Your task to perform on an android device: move an email to a new category in the gmail app Image 0: 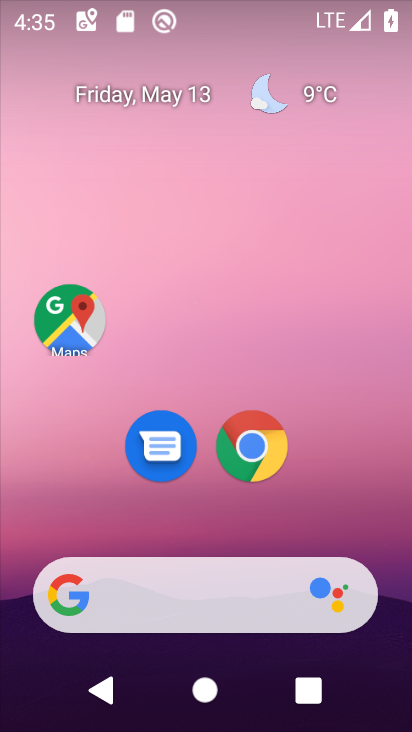
Step 0: drag from (317, 526) to (251, 31)
Your task to perform on an android device: move an email to a new category in the gmail app Image 1: 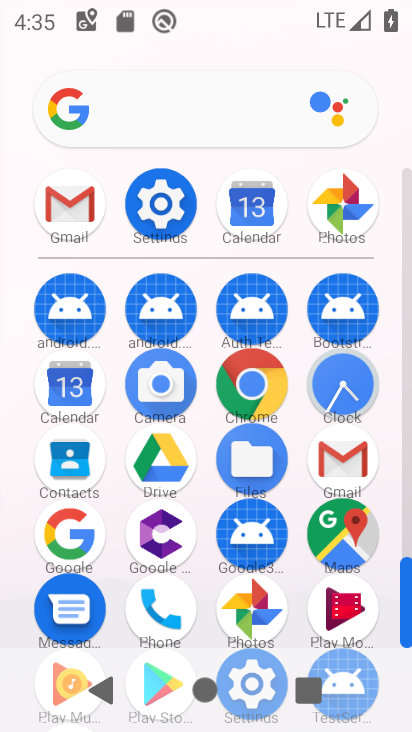
Step 1: click (339, 460)
Your task to perform on an android device: move an email to a new category in the gmail app Image 2: 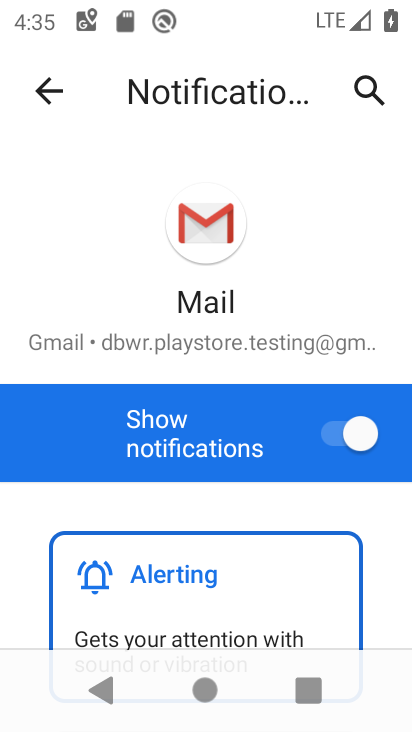
Step 2: click (47, 110)
Your task to perform on an android device: move an email to a new category in the gmail app Image 3: 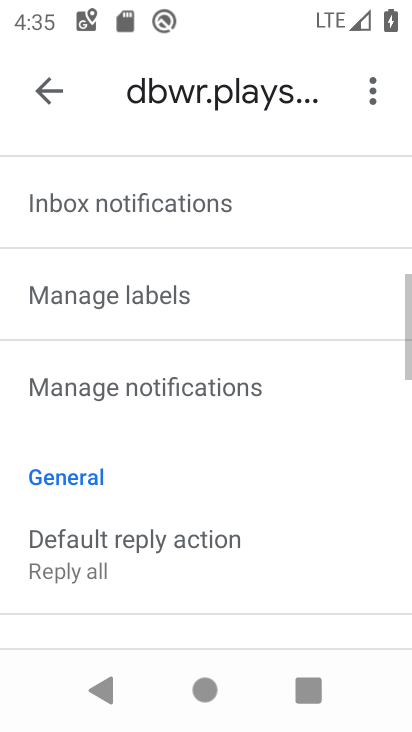
Step 3: click (48, 95)
Your task to perform on an android device: move an email to a new category in the gmail app Image 4: 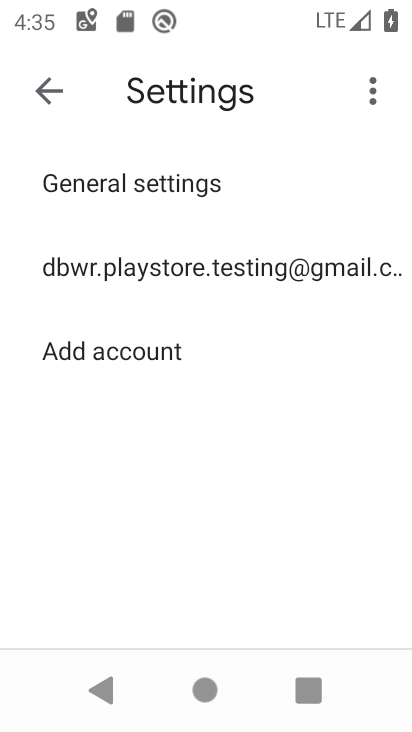
Step 4: click (48, 95)
Your task to perform on an android device: move an email to a new category in the gmail app Image 5: 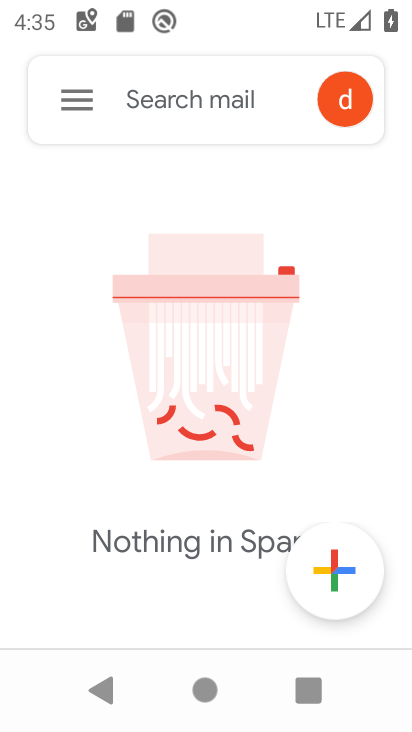
Step 5: click (90, 107)
Your task to perform on an android device: move an email to a new category in the gmail app Image 6: 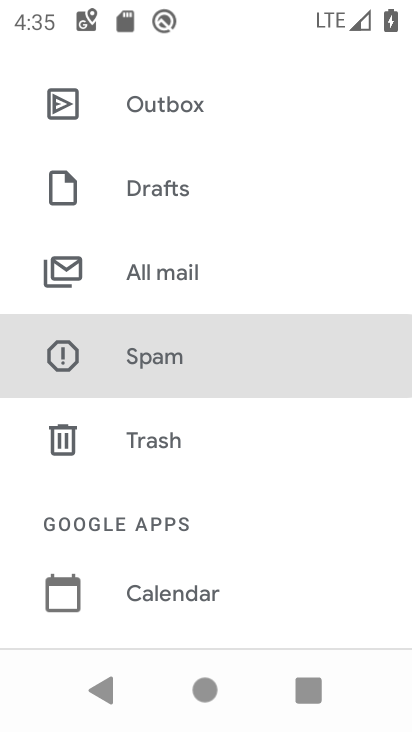
Step 6: drag from (247, 501) to (282, 271)
Your task to perform on an android device: move an email to a new category in the gmail app Image 7: 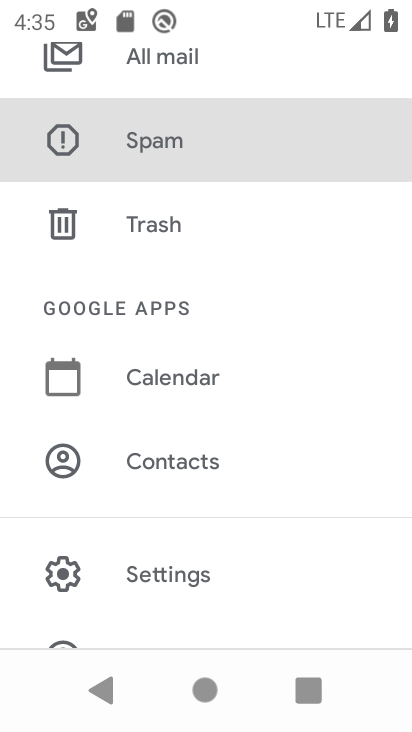
Step 7: click (210, 586)
Your task to perform on an android device: move an email to a new category in the gmail app Image 8: 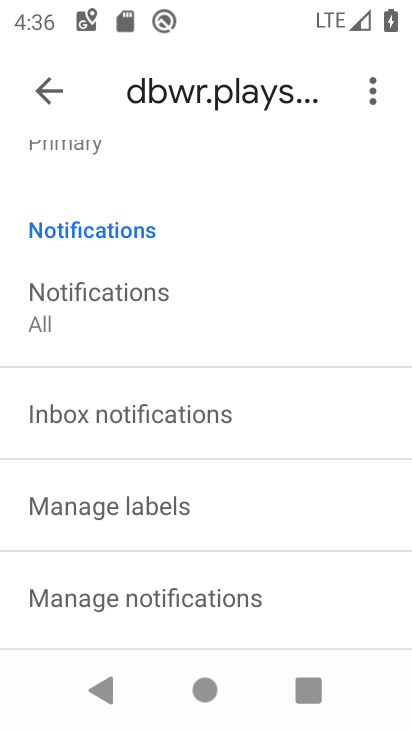
Step 8: click (30, 104)
Your task to perform on an android device: move an email to a new category in the gmail app Image 9: 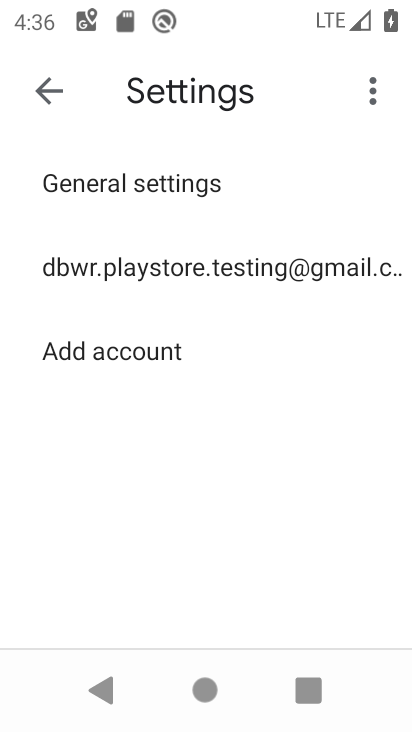
Step 9: click (30, 79)
Your task to perform on an android device: move an email to a new category in the gmail app Image 10: 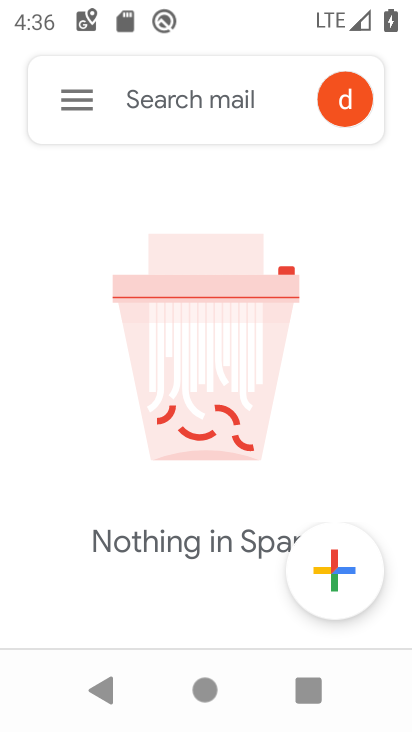
Step 10: click (93, 100)
Your task to perform on an android device: move an email to a new category in the gmail app Image 11: 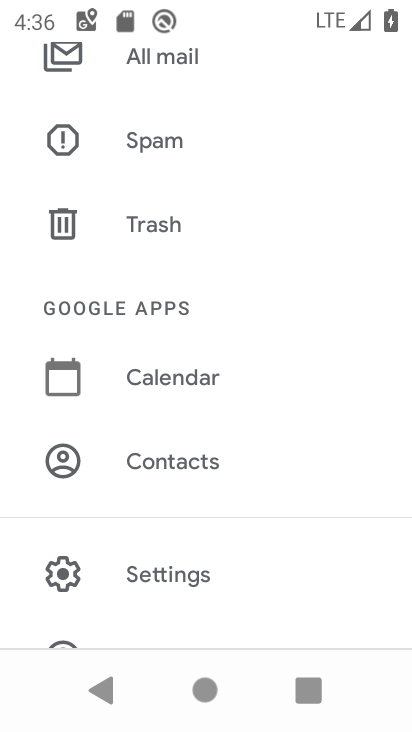
Step 11: drag from (134, 208) to (212, 529)
Your task to perform on an android device: move an email to a new category in the gmail app Image 12: 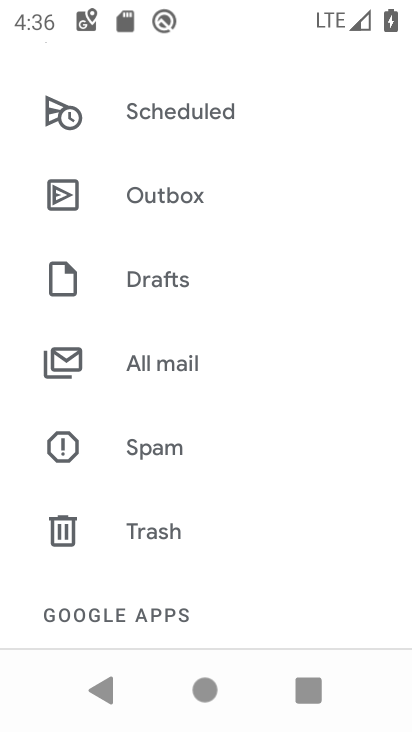
Step 12: click (149, 373)
Your task to perform on an android device: move an email to a new category in the gmail app Image 13: 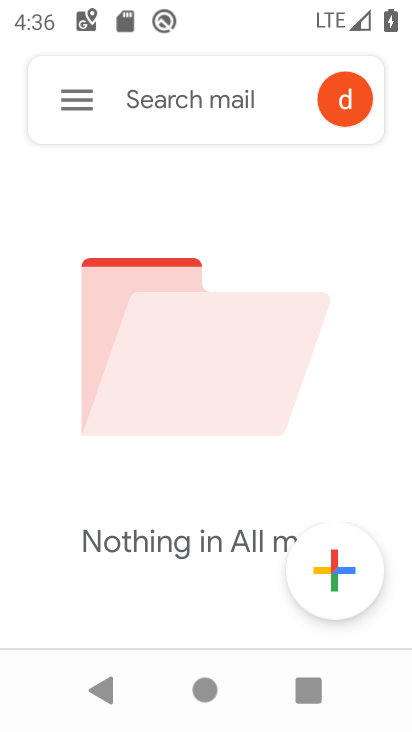
Step 13: task complete